Your task to perform on an android device: turn on data saver in the chrome app Image 0: 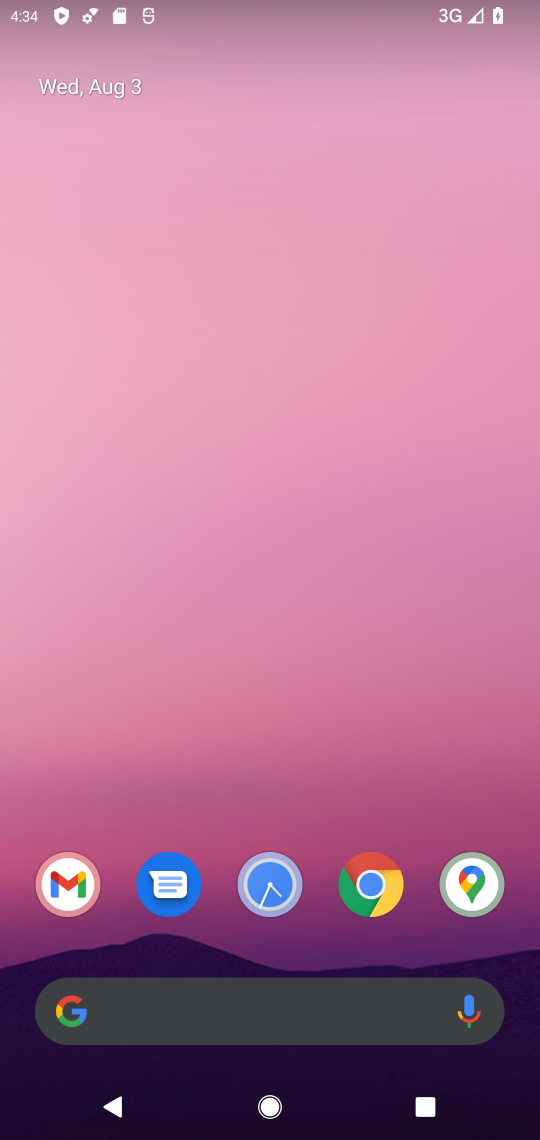
Step 0: task complete